Your task to perform on an android device: Open Google Chrome Image 0: 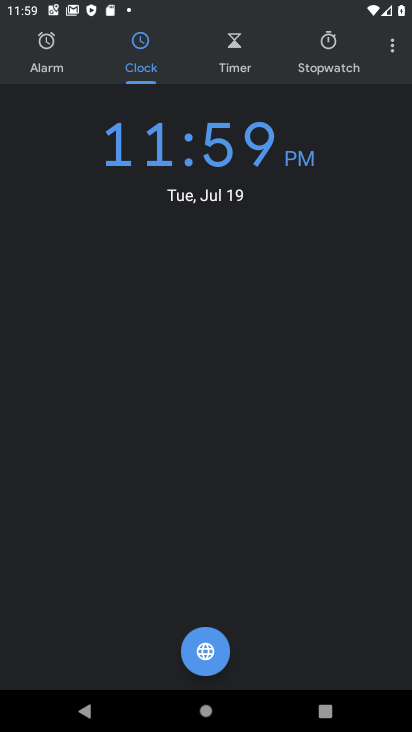
Step 0: press home button
Your task to perform on an android device: Open Google Chrome Image 1: 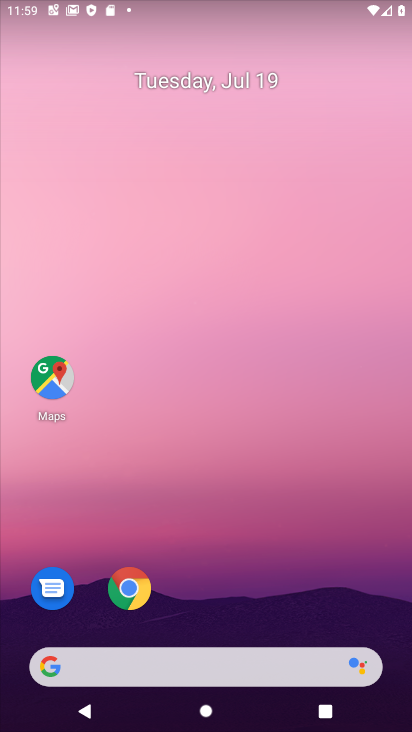
Step 1: drag from (394, 700) to (397, 212)
Your task to perform on an android device: Open Google Chrome Image 2: 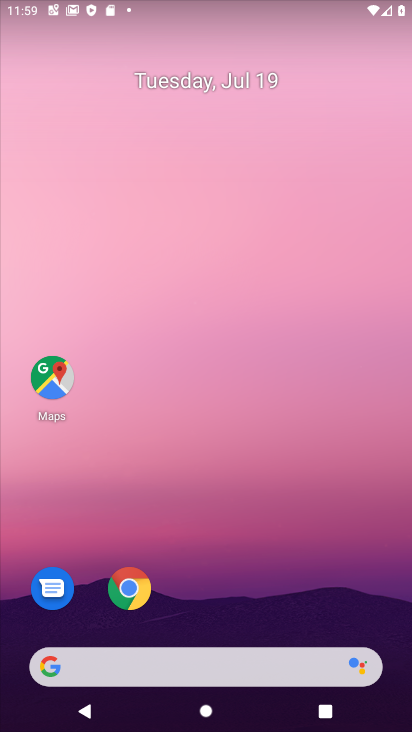
Step 2: drag from (409, 708) to (372, 124)
Your task to perform on an android device: Open Google Chrome Image 3: 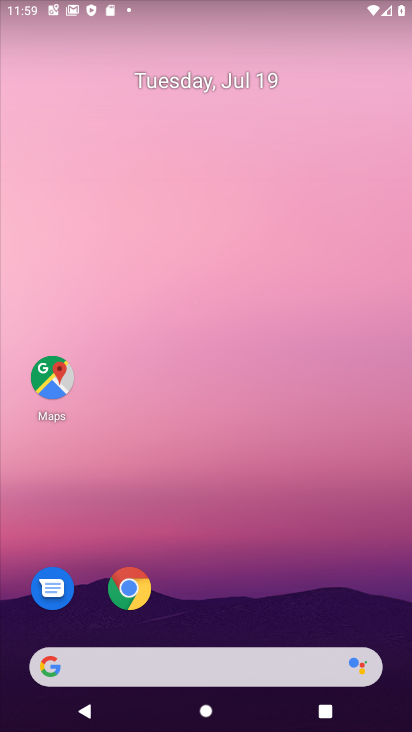
Step 3: drag from (409, 702) to (352, 139)
Your task to perform on an android device: Open Google Chrome Image 4: 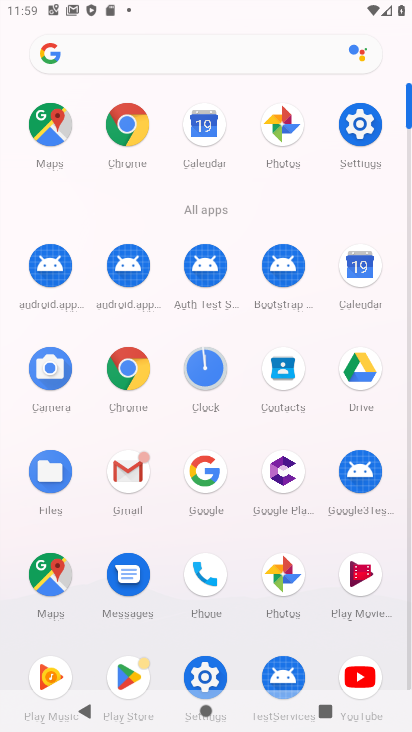
Step 4: drag from (313, 653) to (313, 292)
Your task to perform on an android device: Open Google Chrome Image 5: 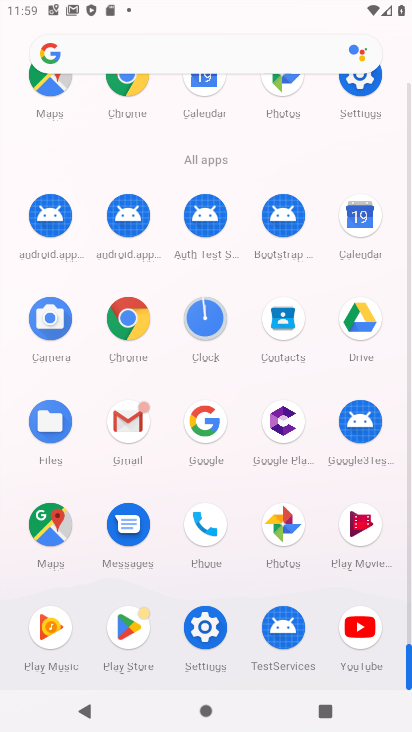
Step 5: click (200, 432)
Your task to perform on an android device: Open Google Chrome Image 6: 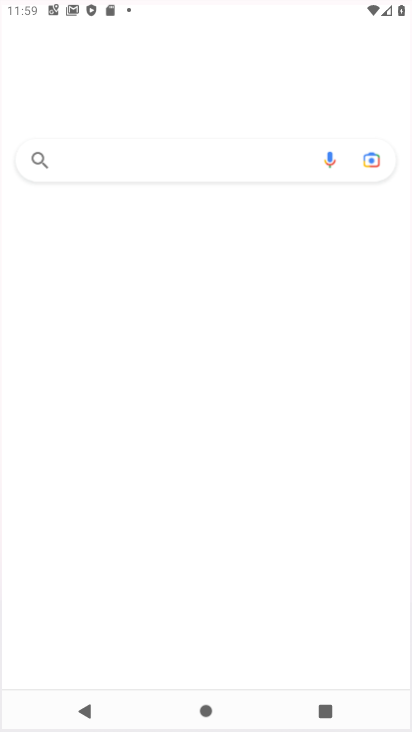
Step 6: click (123, 330)
Your task to perform on an android device: Open Google Chrome Image 7: 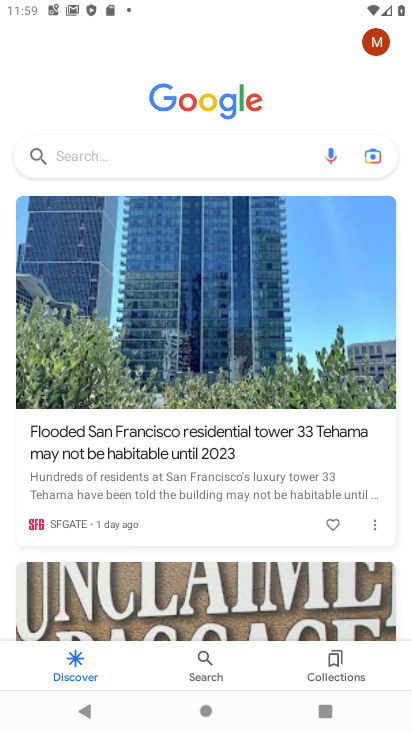
Step 7: press back button
Your task to perform on an android device: Open Google Chrome Image 8: 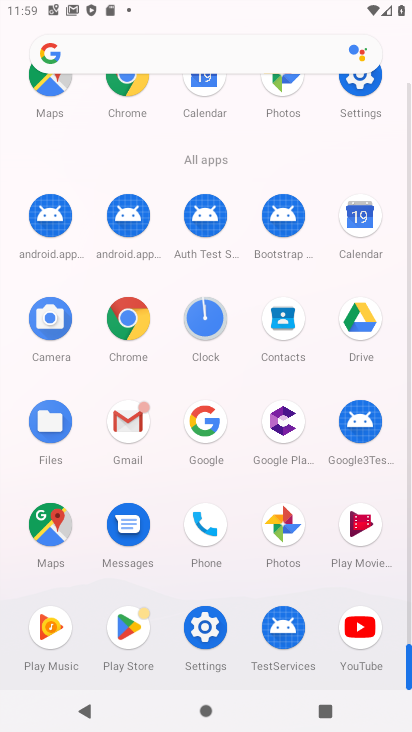
Step 8: click (198, 419)
Your task to perform on an android device: Open Google Chrome Image 9: 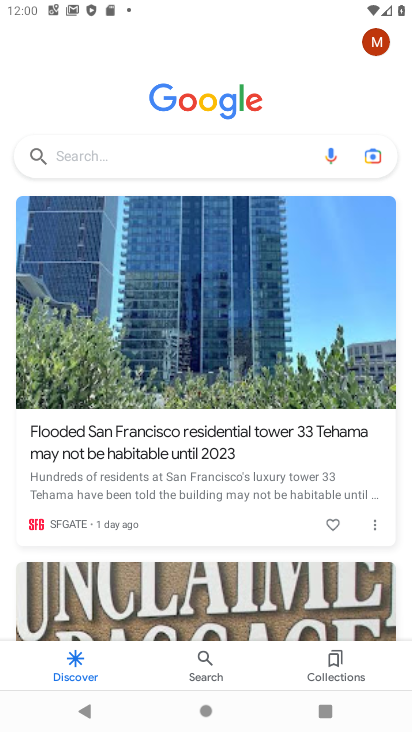
Step 9: task complete